Your task to perform on an android device: Open my contact list Image 0: 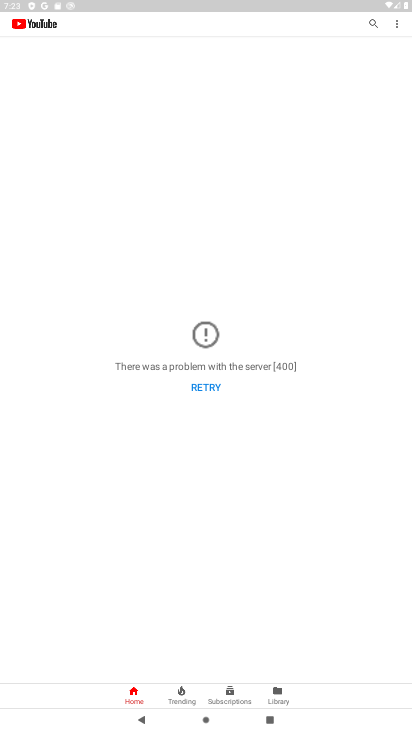
Step 0: press home button
Your task to perform on an android device: Open my contact list Image 1: 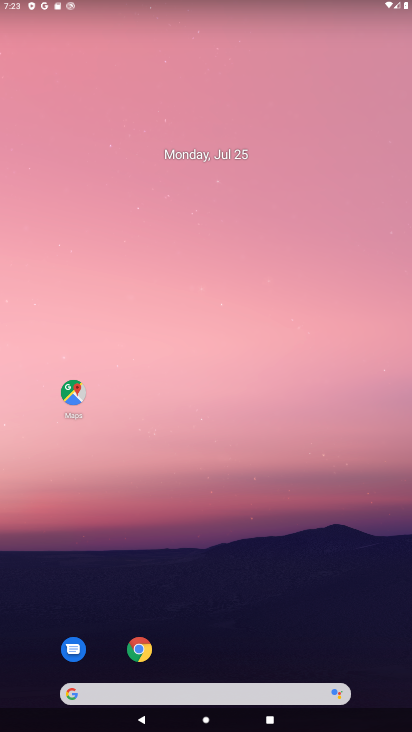
Step 1: drag from (211, 518) to (214, 107)
Your task to perform on an android device: Open my contact list Image 2: 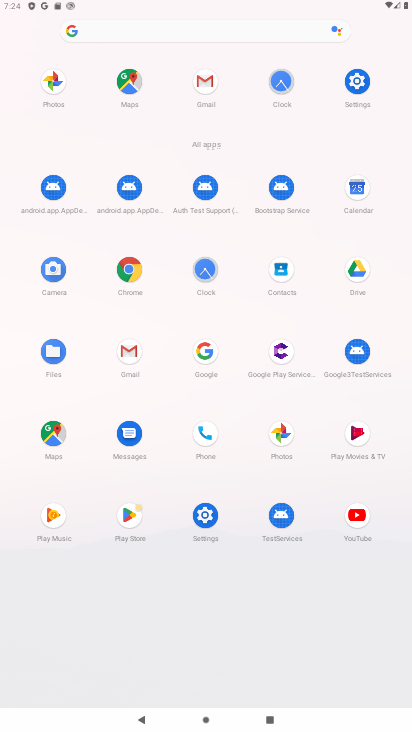
Step 2: click (276, 280)
Your task to perform on an android device: Open my contact list Image 3: 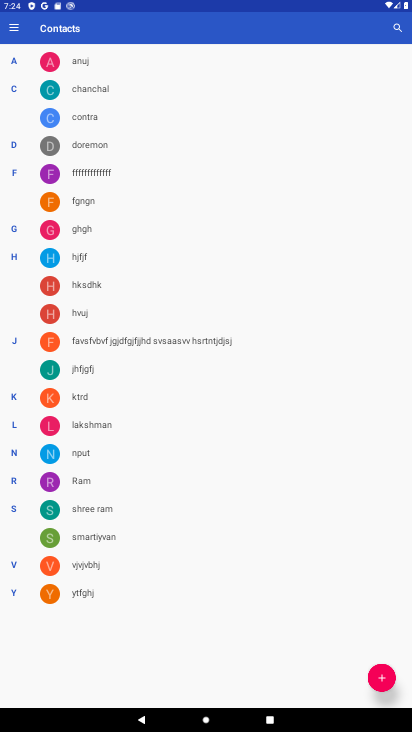
Step 3: task complete